Your task to perform on an android device: Go to Google maps Image 0: 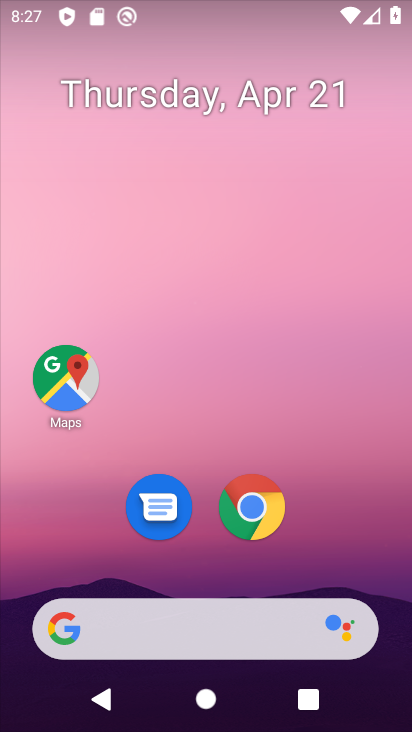
Step 0: drag from (367, 553) to (380, 162)
Your task to perform on an android device: Go to Google maps Image 1: 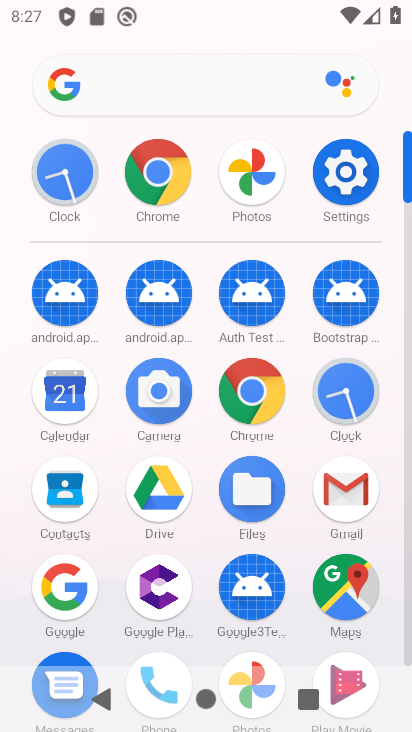
Step 1: click (329, 576)
Your task to perform on an android device: Go to Google maps Image 2: 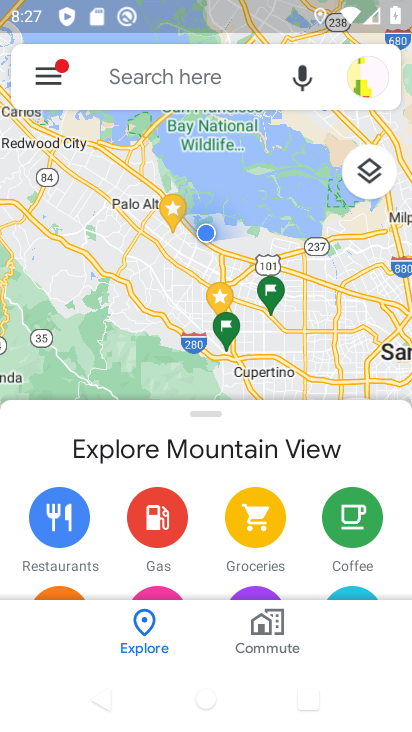
Step 2: task complete